Your task to perform on an android device: Open Youtube and go to "Your channel" Image 0: 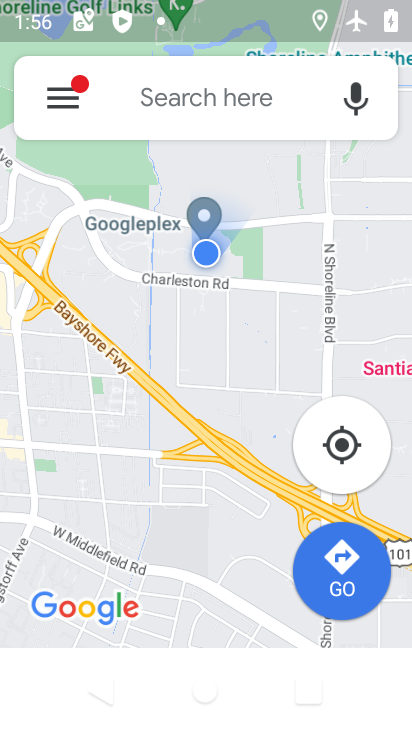
Step 0: press home button
Your task to perform on an android device: Open Youtube and go to "Your channel" Image 1: 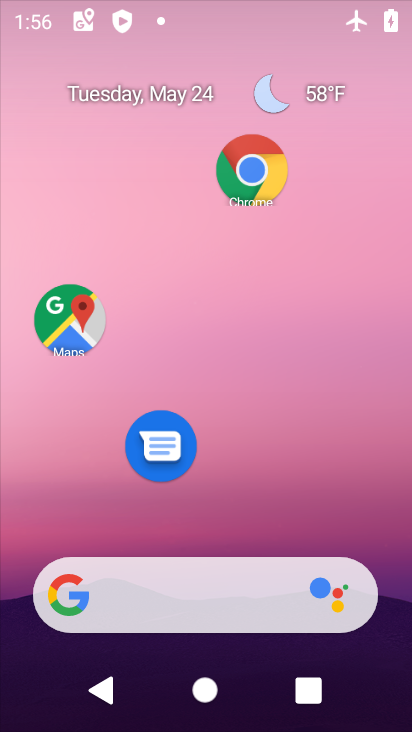
Step 1: drag from (268, 554) to (213, 63)
Your task to perform on an android device: Open Youtube and go to "Your channel" Image 2: 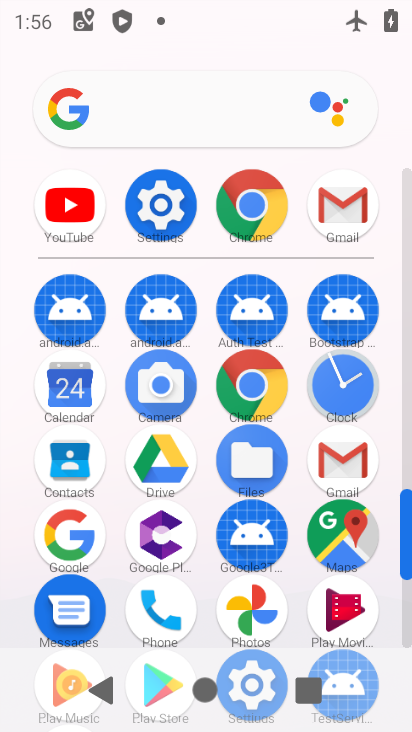
Step 2: click (74, 219)
Your task to perform on an android device: Open Youtube and go to "Your channel" Image 3: 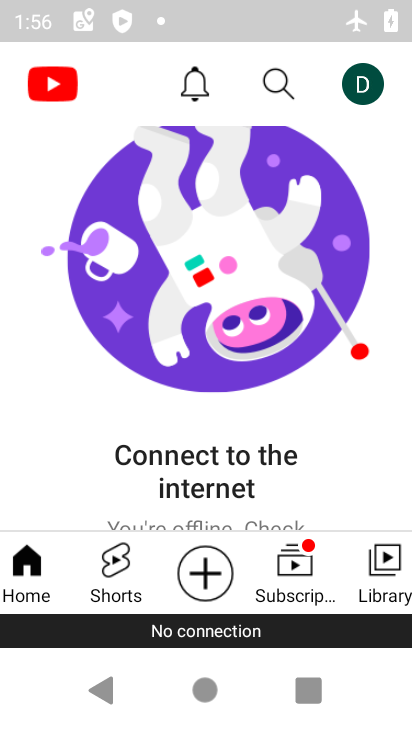
Step 3: click (373, 87)
Your task to perform on an android device: Open Youtube and go to "Your channel" Image 4: 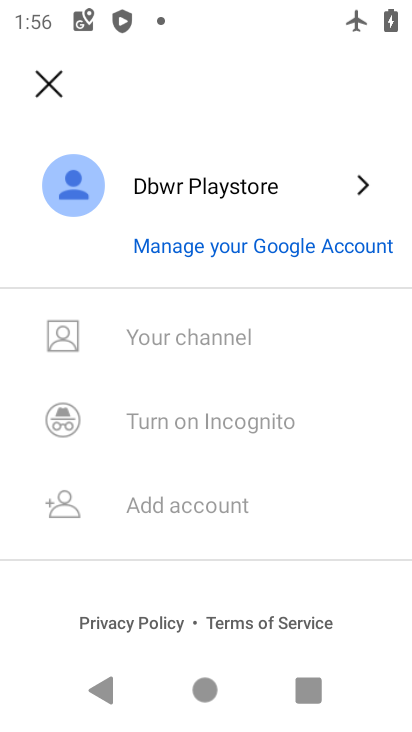
Step 4: click (228, 336)
Your task to perform on an android device: Open Youtube and go to "Your channel" Image 5: 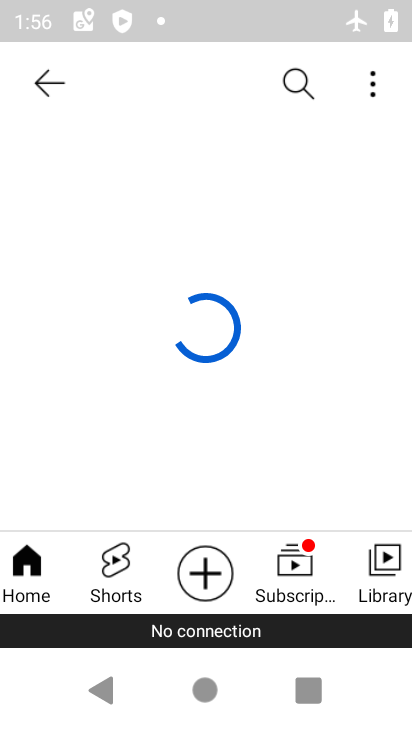
Step 5: task complete